Your task to perform on an android device: Go to privacy settings Image 0: 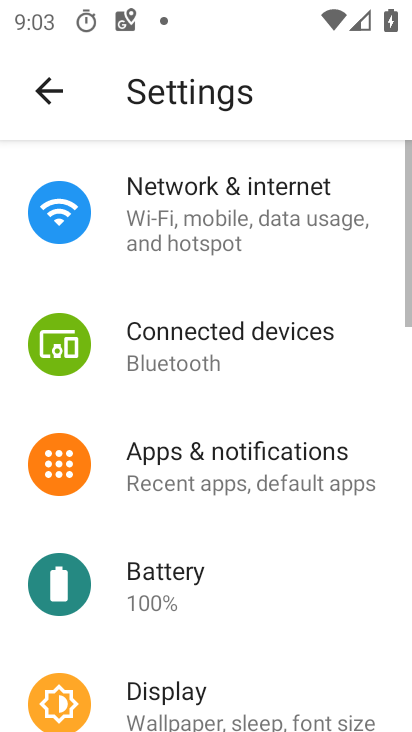
Step 0: drag from (322, 602) to (284, 231)
Your task to perform on an android device: Go to privacy settings Image 1: 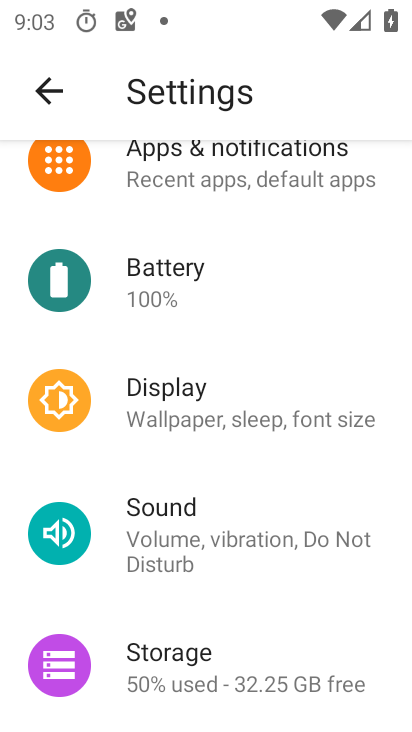
Step 1: drag from (258, 490) to (271, 228)
Your task to perform on an android device: Go to privacy settings Image 2: 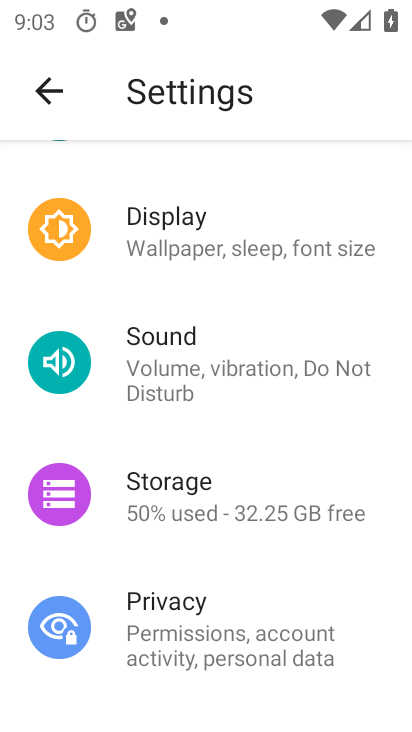
Step 2: click (264, 614)
Your task to perform on an android device: Go to privacy settings Image 3: 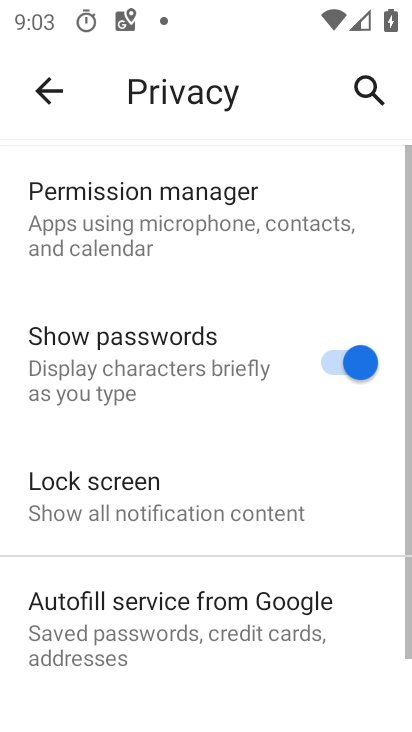
Step 3: task complete